Your task to perform on an android device: Open battery settings Image 0: 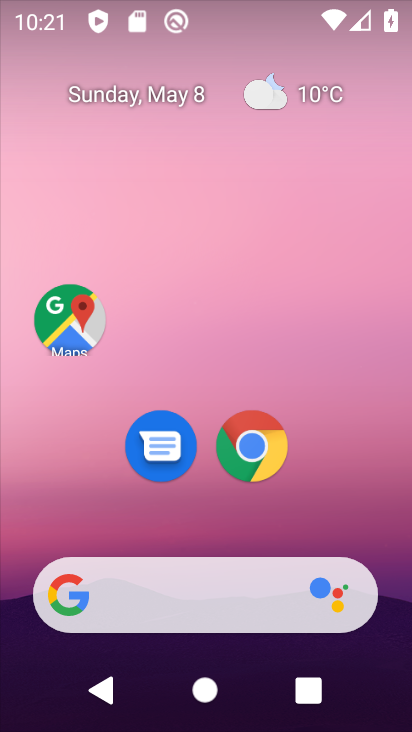
Step 0: drag from (397, 559) to (383, 11)
Your task to perform on an android device: Open battery settings Image 1: 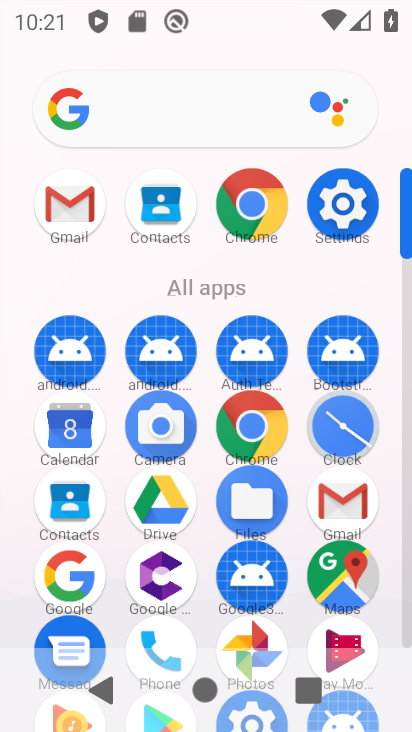
Step 1: click (341, 200)
Your task to perform on an android device: Open battery settings Image 2: 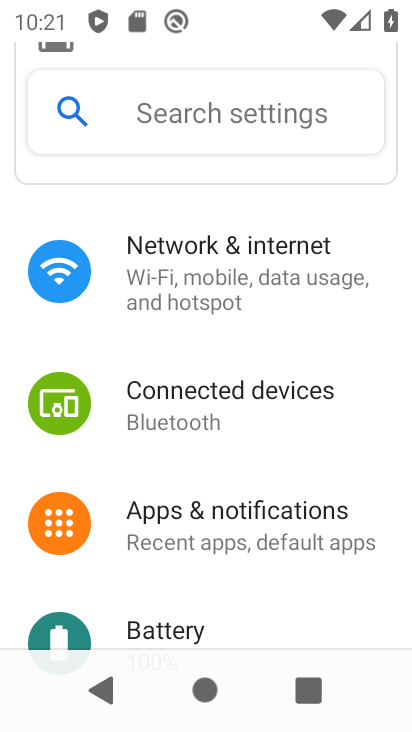
Step 2: click (153, 631)
Your task to perform on an android device: Open battery settings Image 3: 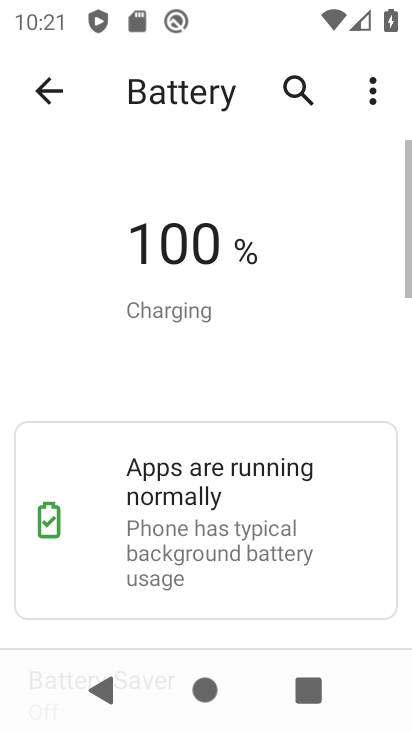
Step 3: task complete